Your task to perform on an android device: Open Google Maps Image 0: 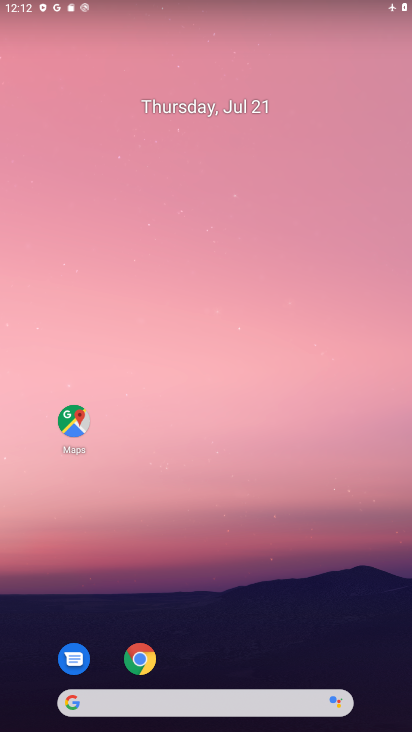
Step 0: drag from (283, 630) to (363, 20)
Your task to perform on an android device: Open Google Maps Image 1: 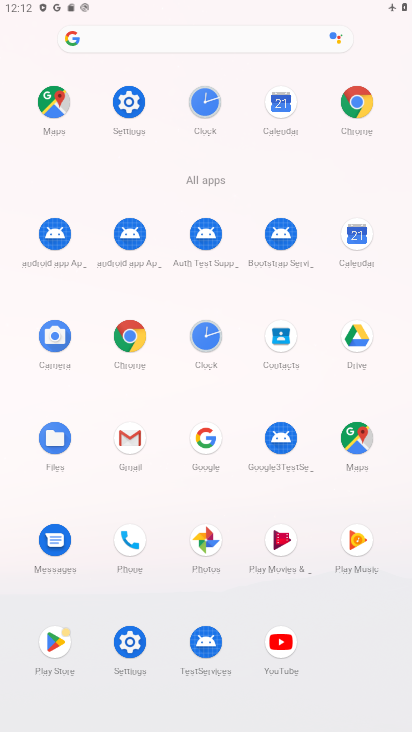
Step 1: click (355, 439)
Your task to perform on an android device: Open Google Maps Image 2: 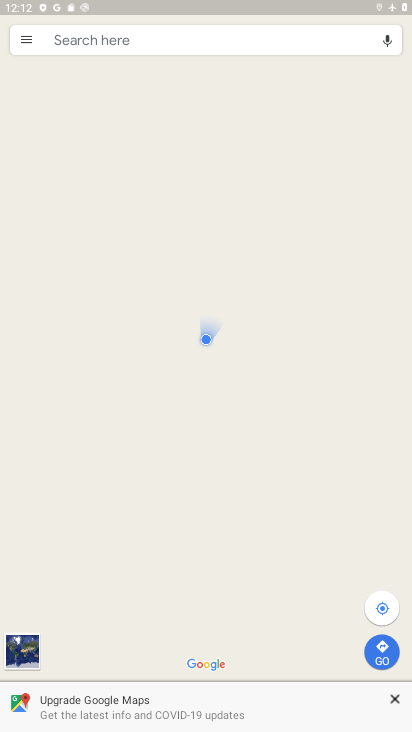
Step 2: task complete